Your task to perform on an android device: Is it going to rain this weekend? Image 0: 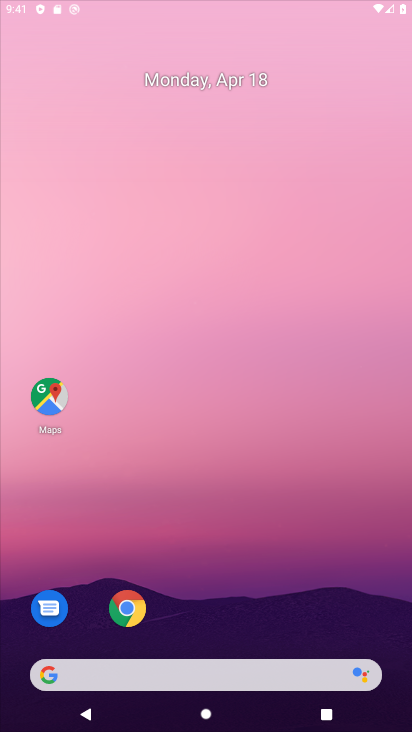
Step 0: click (296, 152)
Your task to perform on an android device: Is it going to rain this weekend? Image 1: 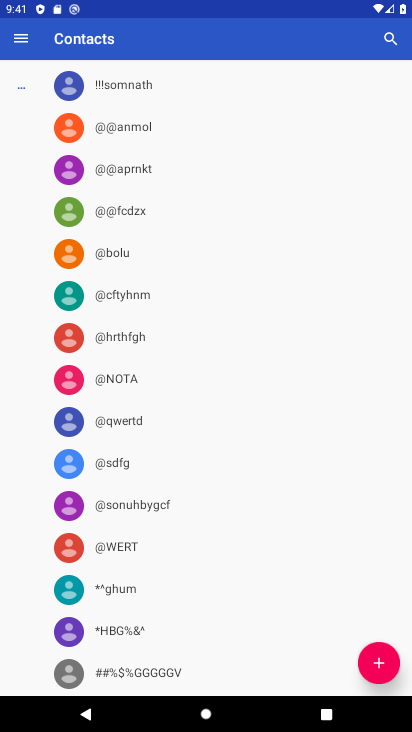
Step 1: press home button
Your task to perform on an android device: Is it going to rain this weekend? Image 2: 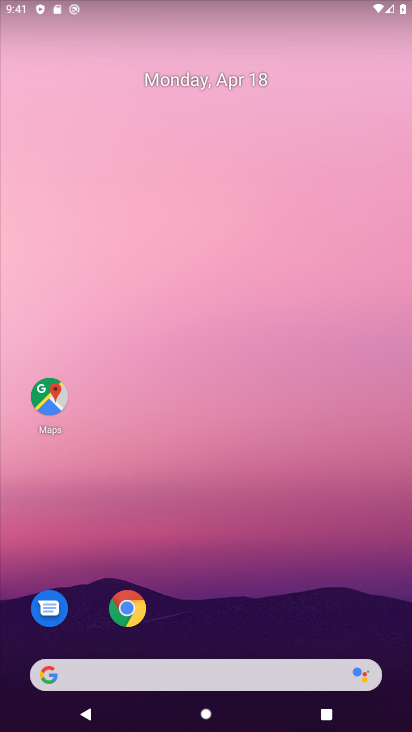
Step 2: click (130, 607)
Your task to perform on an android device: Is it going to rain this weekend? Image 3: 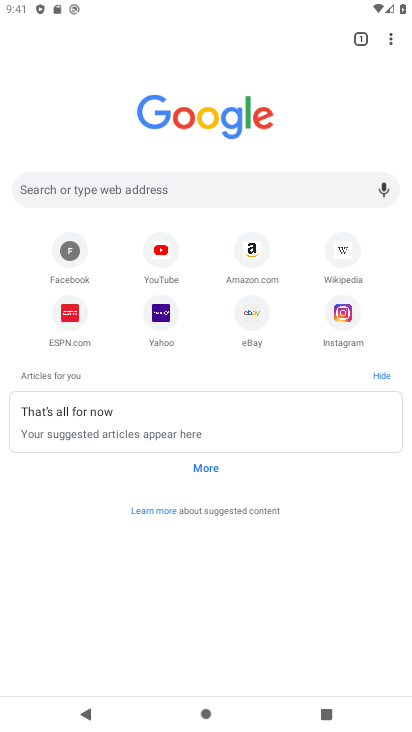
Step 3: click (135, 182)
Your task to perform on an android device: Is it going to rain this weekend? Image 4: 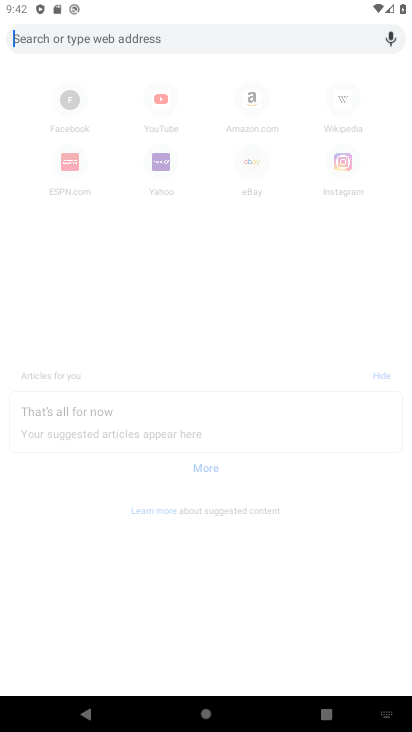
Step 4: type "is it going to rain this weekend"
Your task to perform on an android device: Is it going to rain this weekend? Image 5: 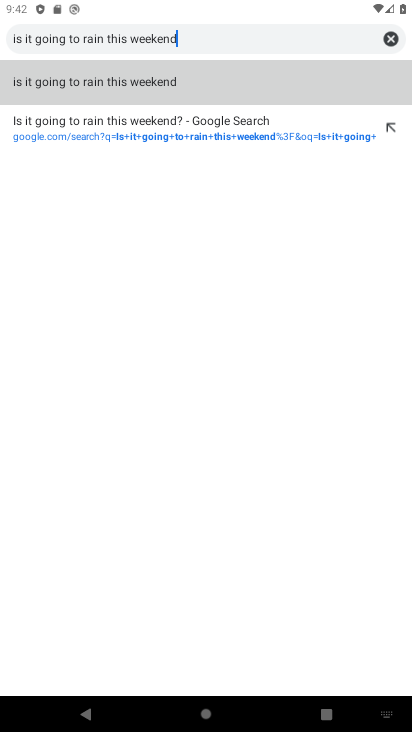
Step 5: click (150, 90)
Your task to perform on an android device: Is it going to rain this weekend? Image 6: 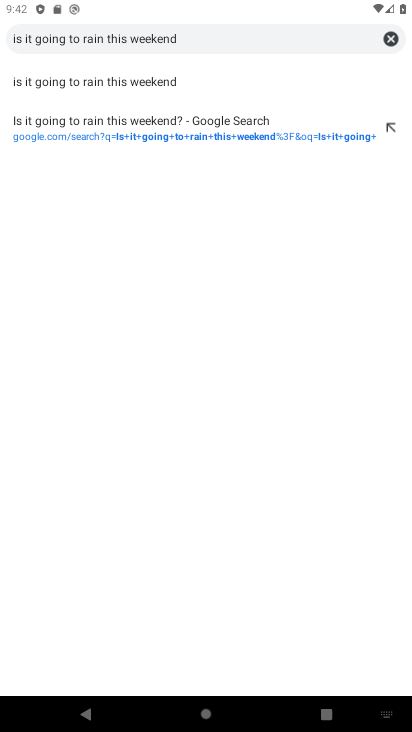
Step 6: click (150, 90)
Your task to perform on an android device: Is it going to rain this weekend? Image 7: 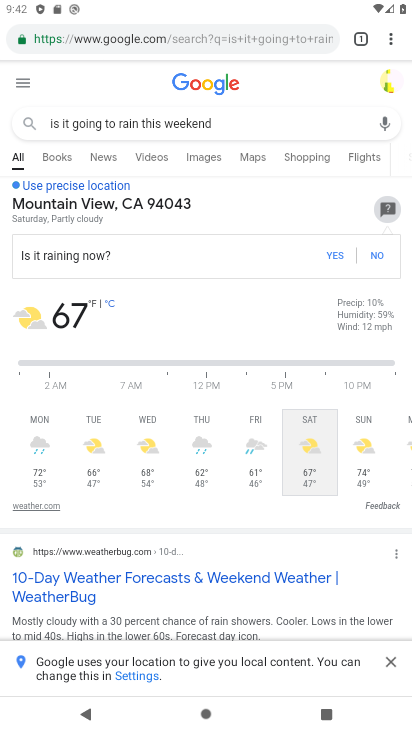
Step 7: task complete